Your task to perform on an android device: change timer sound Image 0: 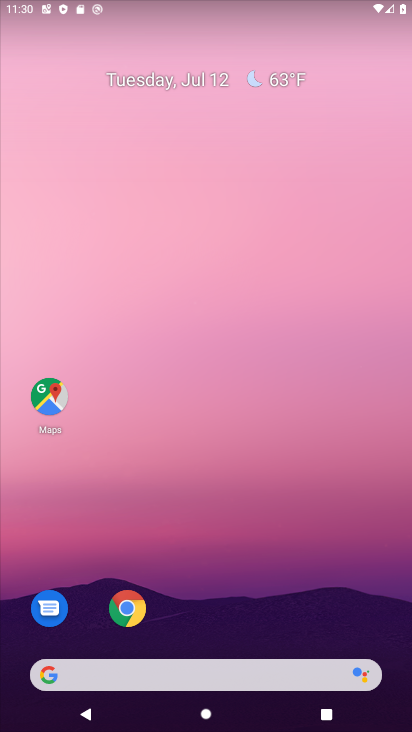
Step 0: drag from (183, 616) to (196, 135)
Your task to perform on an android device: change timer sound Image 1: 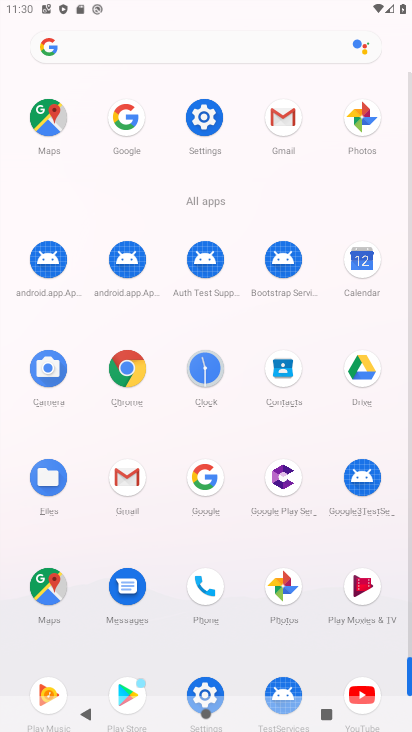
Step 1: click (207, 367)
Your task to perform on an android device: change timer sound Image 2: 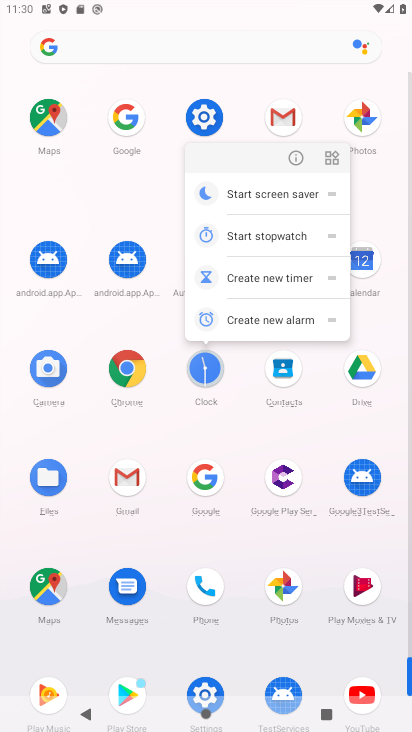
Step 2: click (209, 368)
Your task to perform on an android device: change timer sound Image 3: 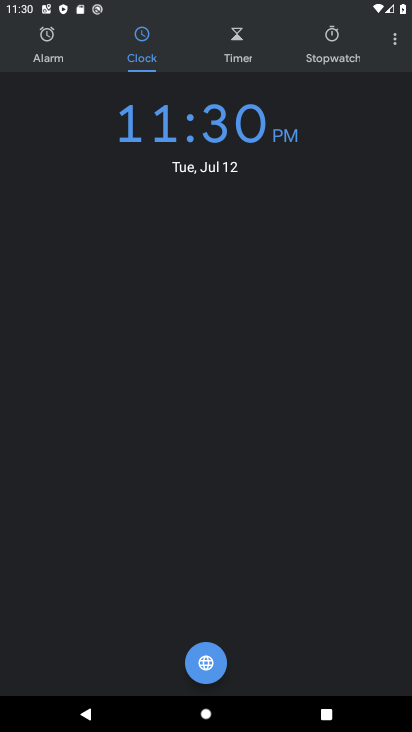
Step 3: click (388, 40)
Your task to perform on an android device: change timer sound Image 4: 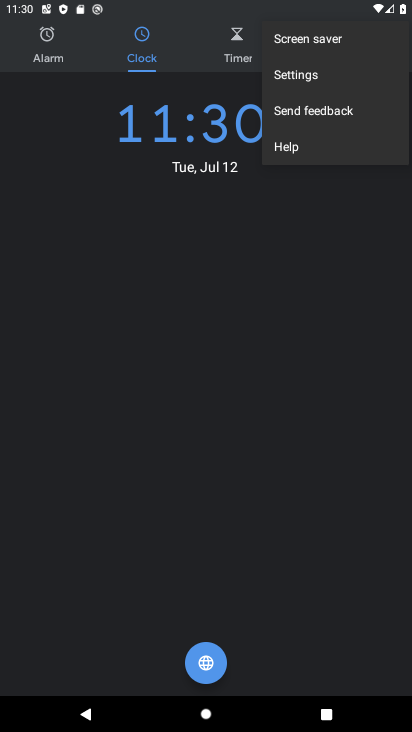
Step 4: click (304, 72)
Your task to perform on an android device: change timer sound Image 5: 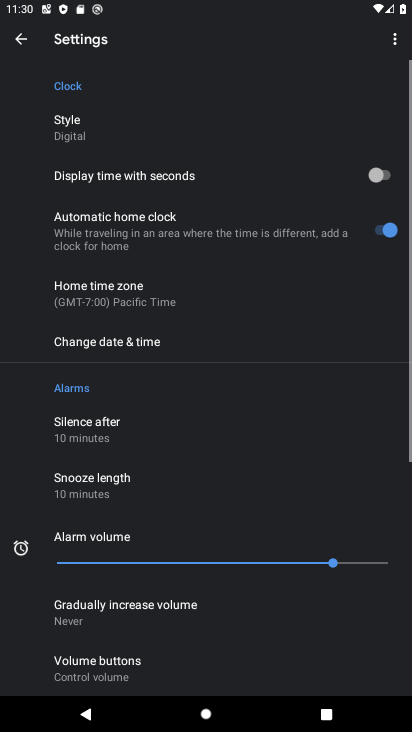
Step 5: drag from (175, 537) to (191, 141)
Your task to perform on an android device: change timer sound Image 6: 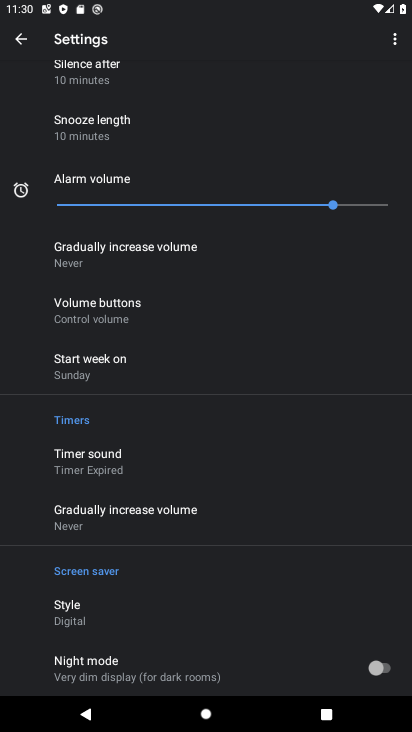
Step 6: click (115, 463)
Your task to perform on an android device: change timer sound Image 7: 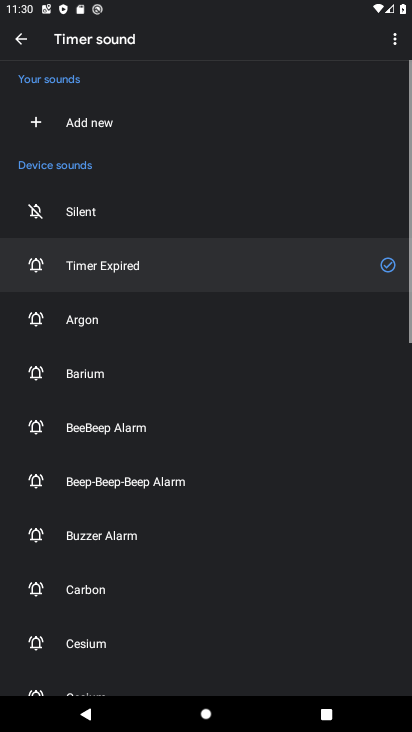
Step 7: click (73, 321)
Your task to perform on an android device: change timer sound Image 8: 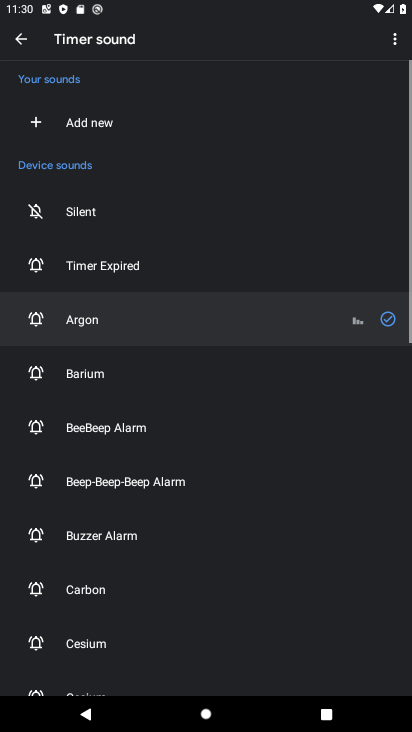
Step 8: task complete